Your task to perform on an android device: Open the web browser Image 0: 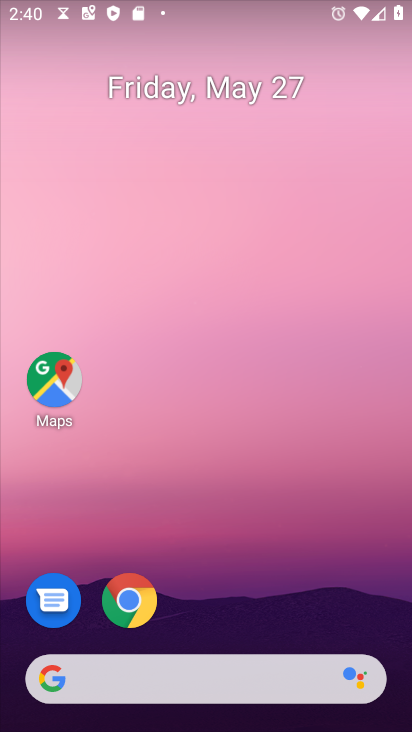
Step 0: drag from (243, 596) to (203, 22)
Your task to perform on an android device: Open the web browser Image 1: 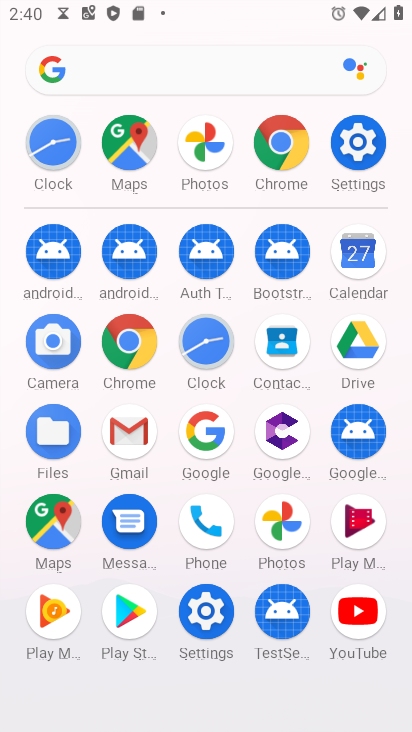
Step 1: click (126, 335)
Your task to perform on an android device: Open the web browser Image 2: 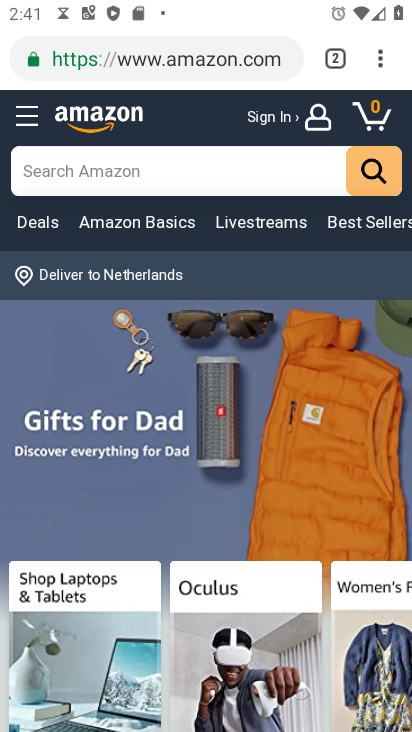
Step 2: task complete